Your task to perform on an android device: toggle priority inbox in the gmail app Image 0: 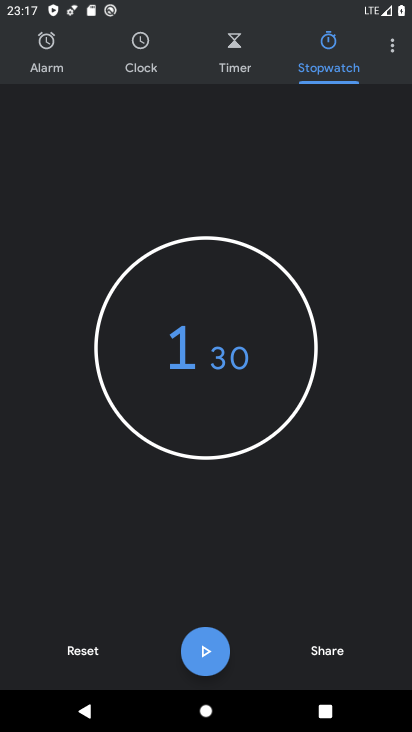
Step 0: press home button
Your task to perform on an android device: toggle priority inbox in the gmail app Image 1: 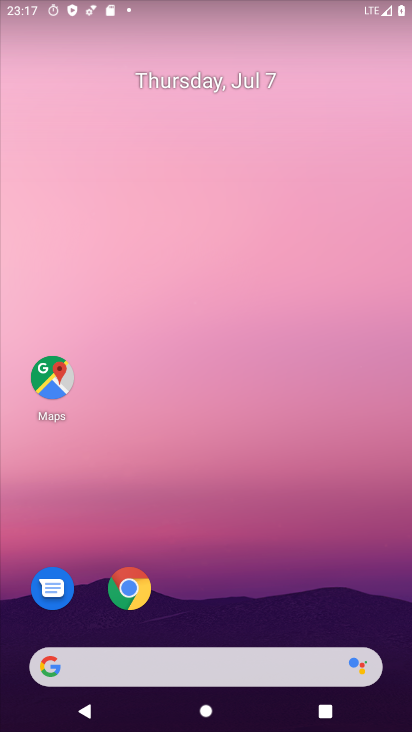
Step 1: drag from (269, 509) to (246, 90)
Your task to perform on an android device: toggle priority inbox in the gmail app Image 2: 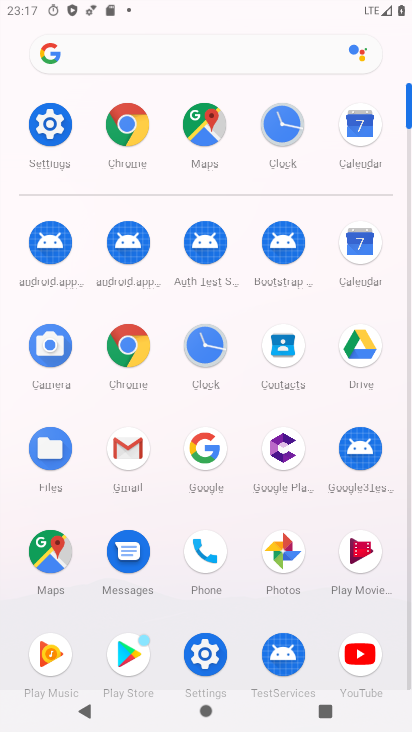
Step 2: click (136, 449)
Your task to perform on an android device: toggle priority inbox in the gmail app Image 3: 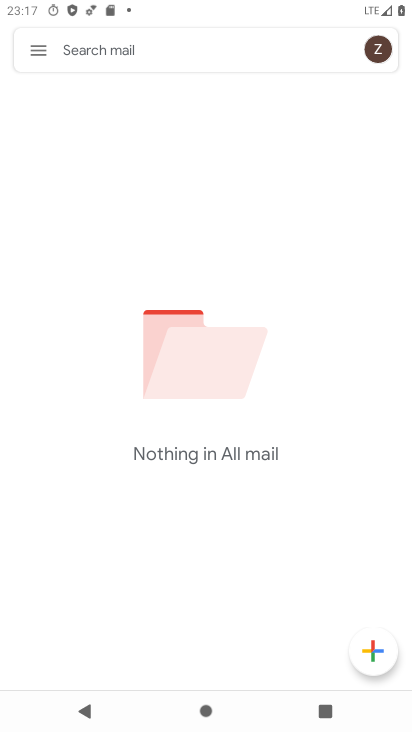
Step 3: click (45, 45)
Your task to perform on an android device: toggle priority inbox in the gmail app Image 4: 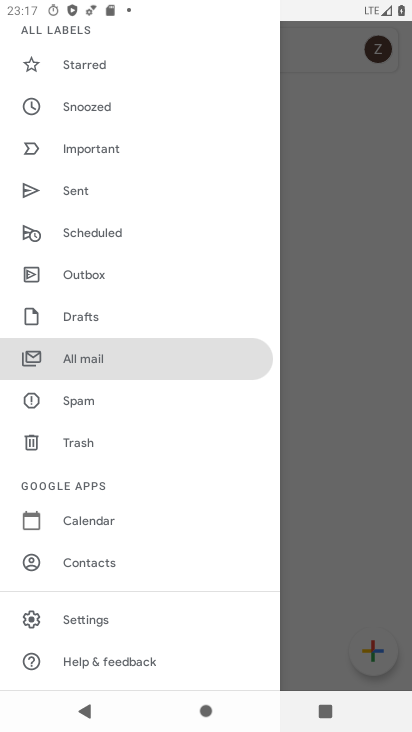
Step 4: click (67, 619)
Your task to perform on an android device: toggle priority inbox in the gmail app Image 5: 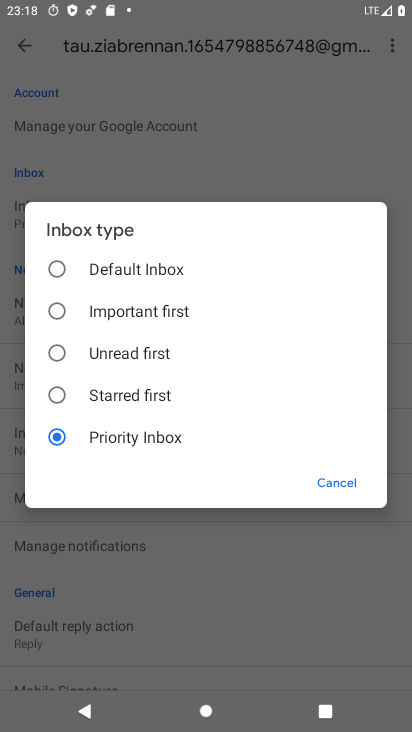
Step 5: click (102, 270)
Your task to perform on an android device: toggle priority inbox in the gmail app Image 6: 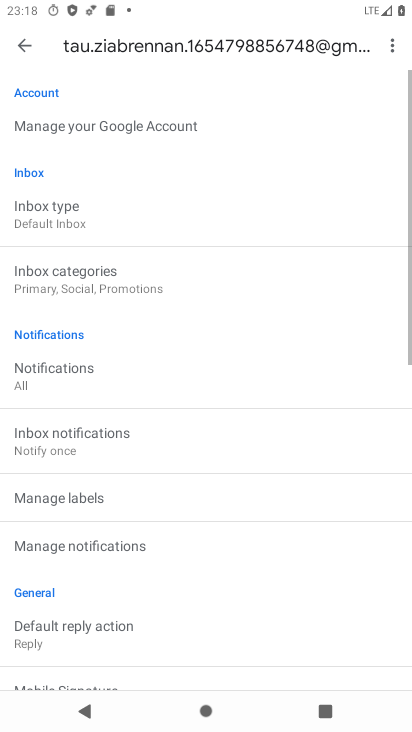
Step 6: task complete